Your task to perform on an android device: change text size in settings app Image 0: 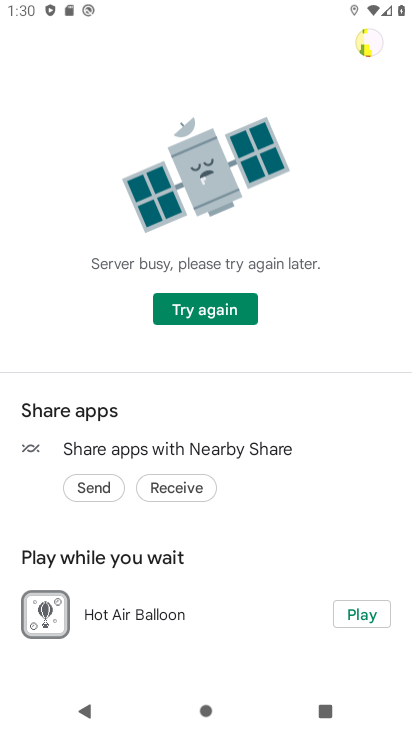
Step 0: press back button
Your task to perform on an android device: change text size in settings app Image 1: 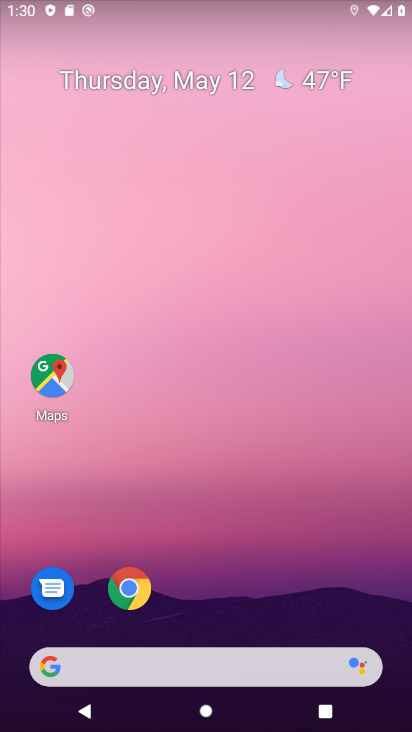
Step 1: drag from (384, 591) to (295, 178)
Your task to perform on an android device: change text size in settings app Image 2: 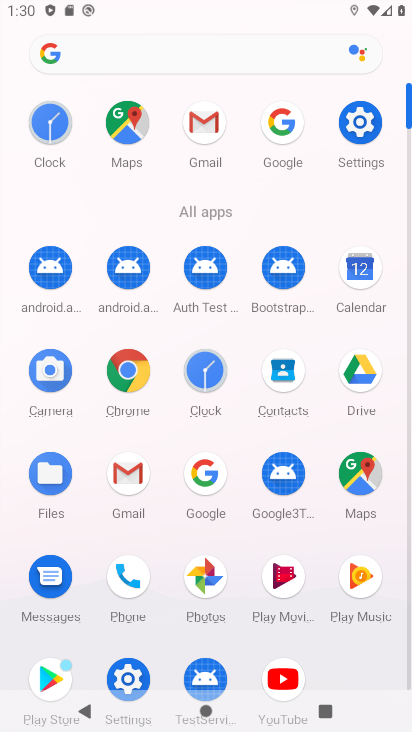
Step 2: click (361, 128)
Your task to perform on an android device: change text size in settings app Image 3: 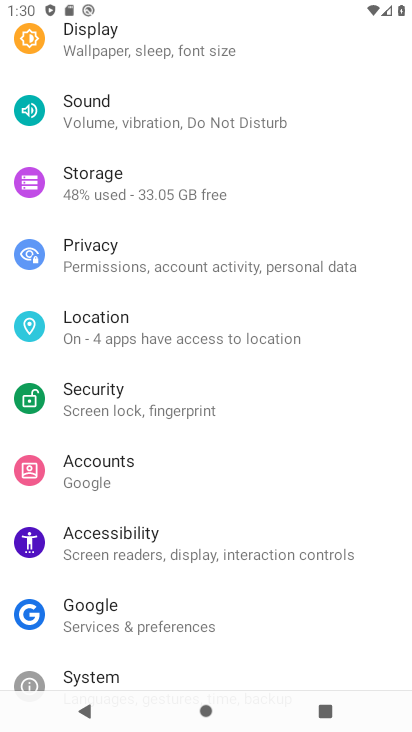
Step 3: drag from (120, 622) to (152, 464)
Your task to perform on an android device: change text size in settings app Image 4: 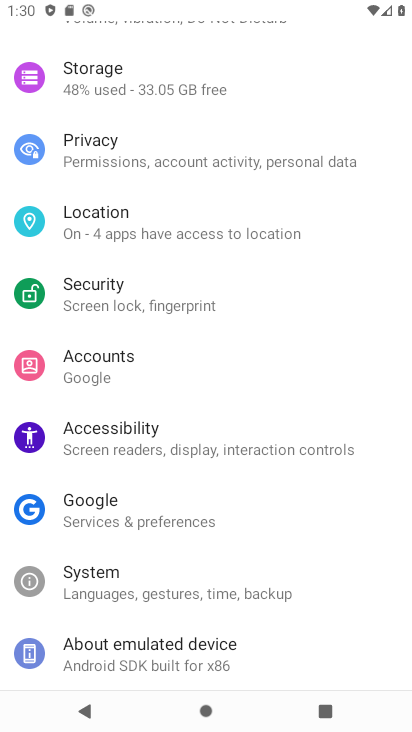
Step 4: drag from (181, 180) to (236, 667)
Your task to perform on an android device: change text size in settings app Image 5: 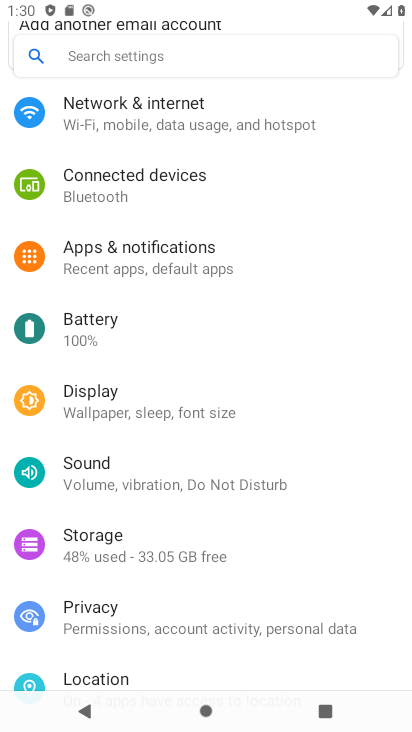
Step 5: click (146, 399)
Your task to perform on an android device: change text size in settings app Image 6: 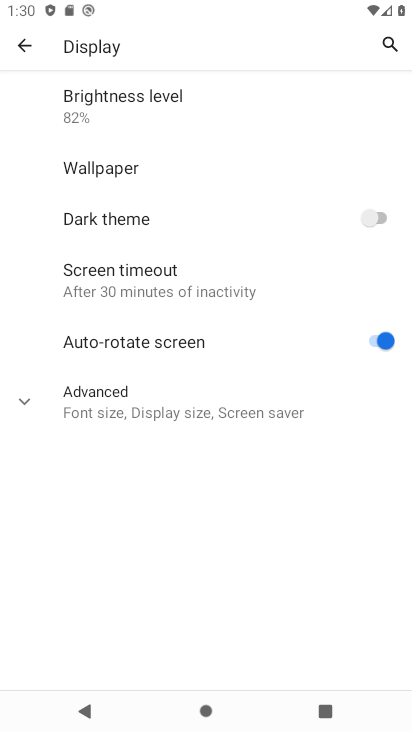
Step 6: click (146, 399)
Your task to perform on an android device: change text size in settings app Image 7: 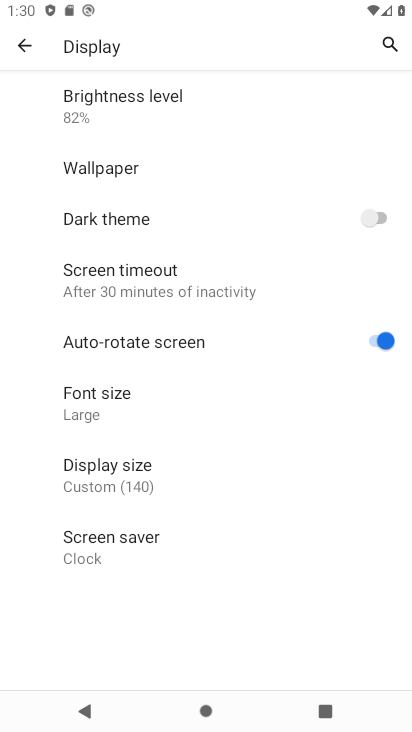
Step 7: click (146, 399)
Your task to perform on an android device: change text size in settings app Image 8: 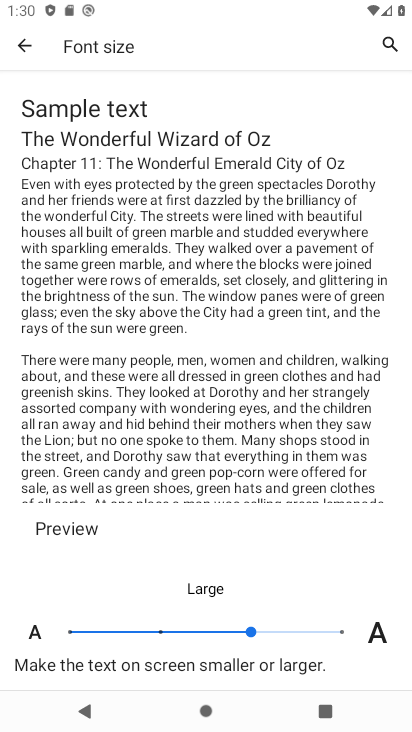
Step 8: click (161, 636)
Your task to perform on an android device: change text size in settings app Image 9: 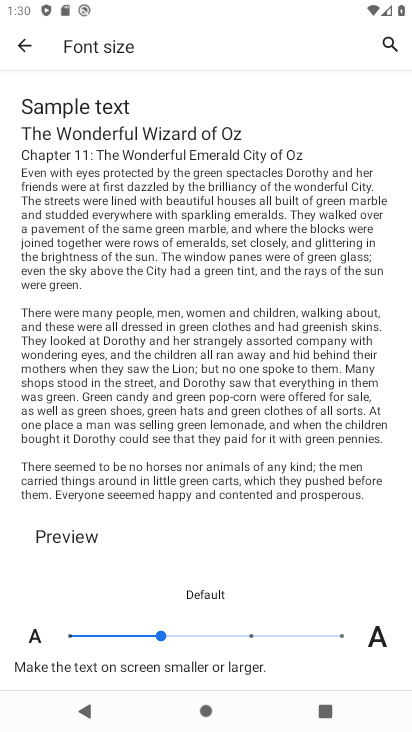
Step 9: task complete